Your task to perform on an android device: delete location history Image 0: 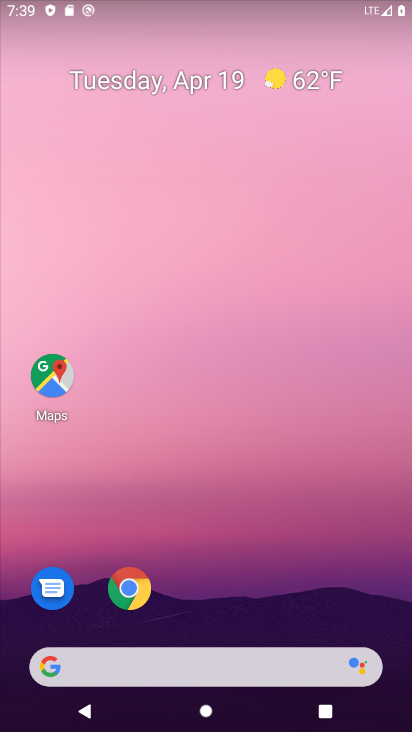
Step 0: click (43, 380)
Your task to perform on an android device: delete location history Image 1: 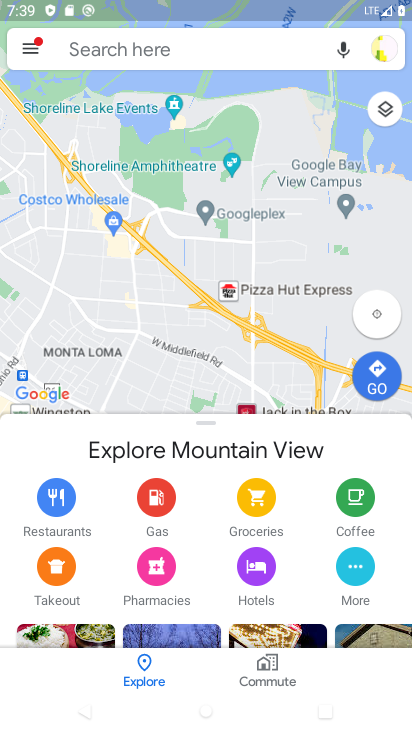
Step 1: click (27, 51)
Your task to perform on an android device: delete location history Image 2: 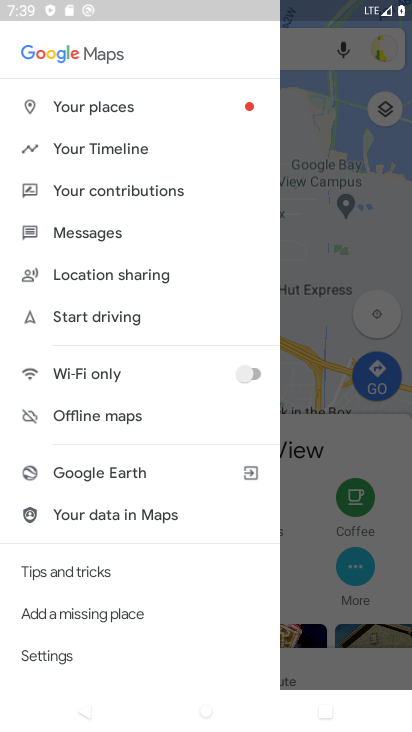
Step 2: click (112, 145)
Your task to perform on an android device: delete location history Image 3: 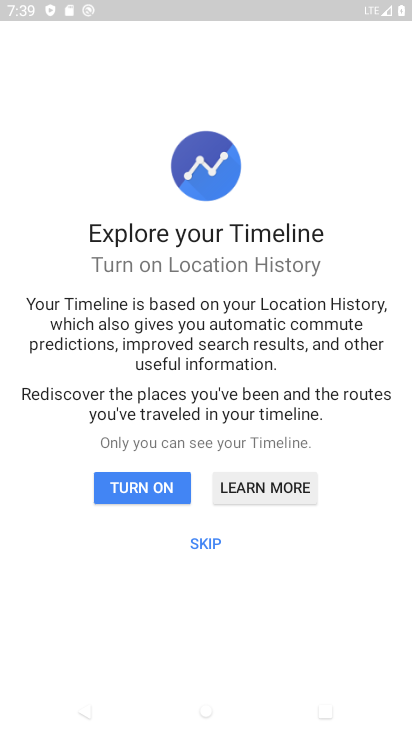
Step 3: click (145, 493)
Your task to perform on an android device: delete location history Image 4: 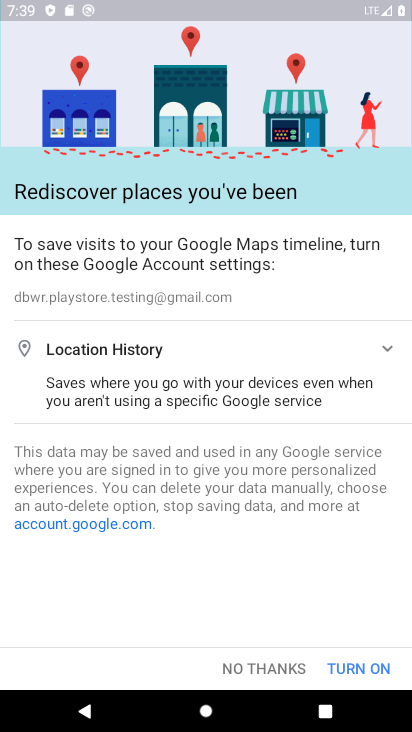
Step 4: click (367, 667)
Your task to perform on an android device: delete location history Image 5: 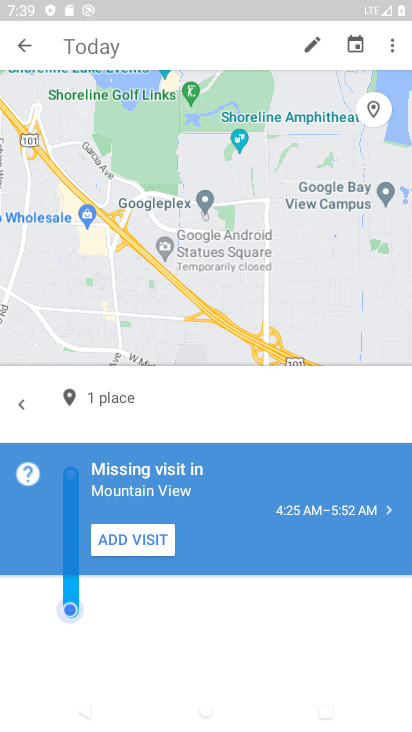
Step 5: click (389, 46)
Your task to perform on an android device: delete location history Image 6: 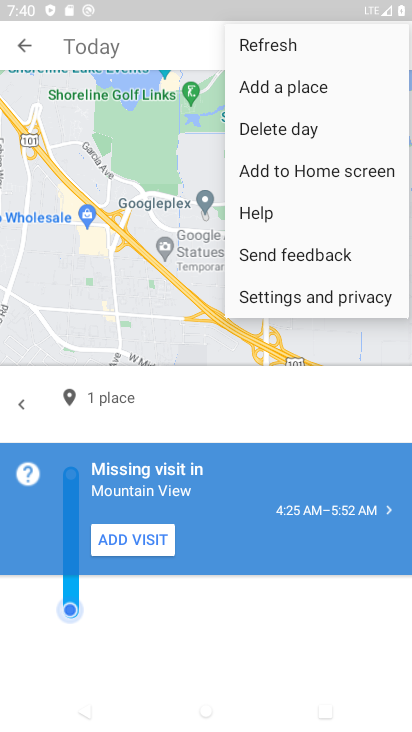
Step 6: click (323, 298)
Your task to perform on an android device: delete location history Image 7: 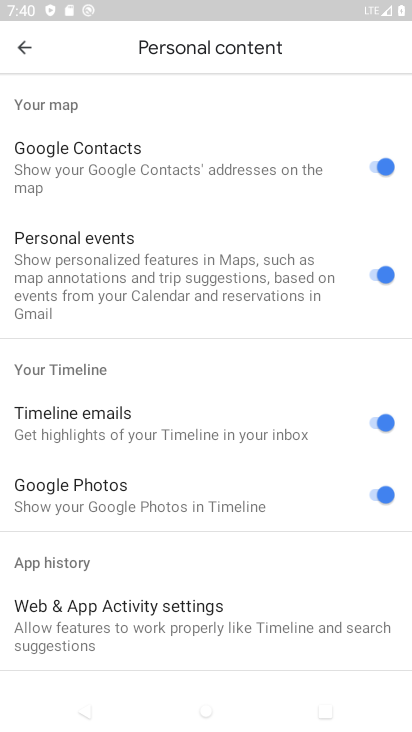
Step 7: drag from (221, 539) to (273, 18)
Your task to perform on an android device: delete location history Image 8: 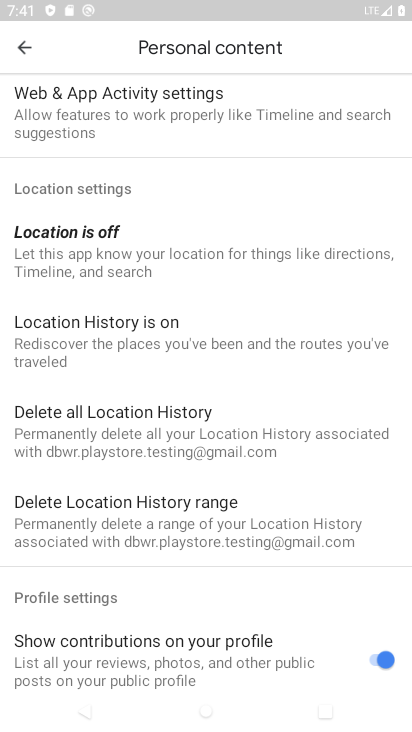
Step 8: click (122, 425)
Your task to perform on an android device: delete location history Image 9: 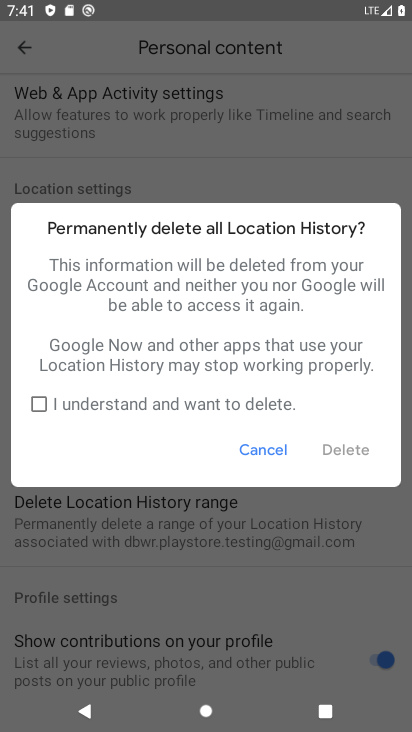
Step 9: click (44, 411)
Your task to perform on an android device: delete location history Image 10: 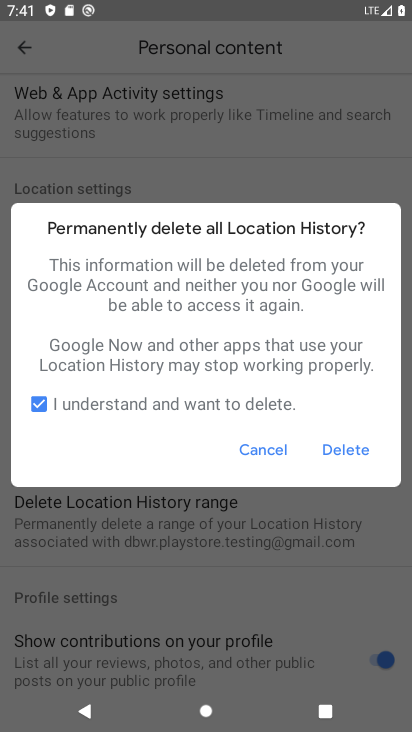
Step 10: click (351, 451)
Your task to perform on an android device: delete location history Image 11: 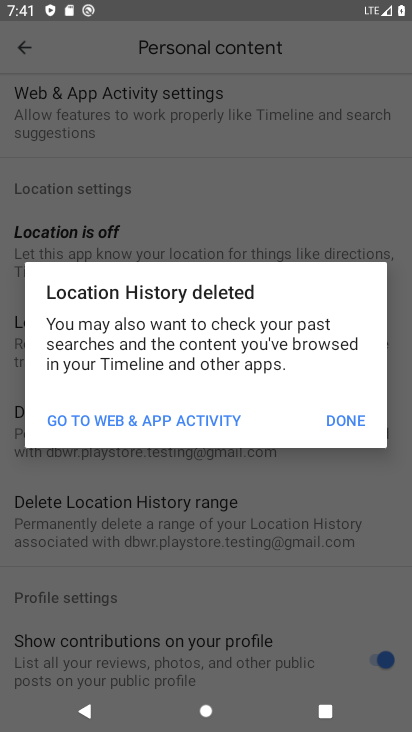
Step 11: click (344, 419)
Your task to perform on an android device: delete location history Image 12: 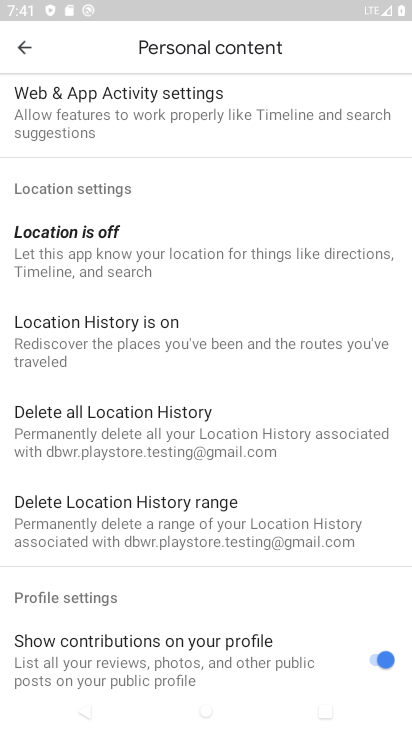
Step 12: task complete